Your task to perform on an android device: Check the news Image 0: 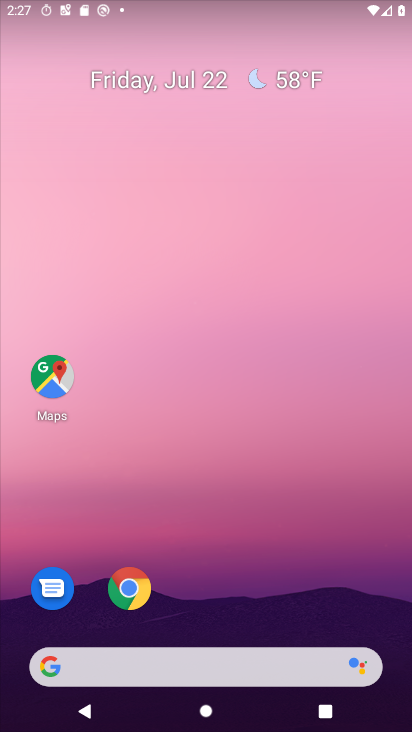
Step 0: press home button
Your task to perform on an android device: Check the news Image 1: 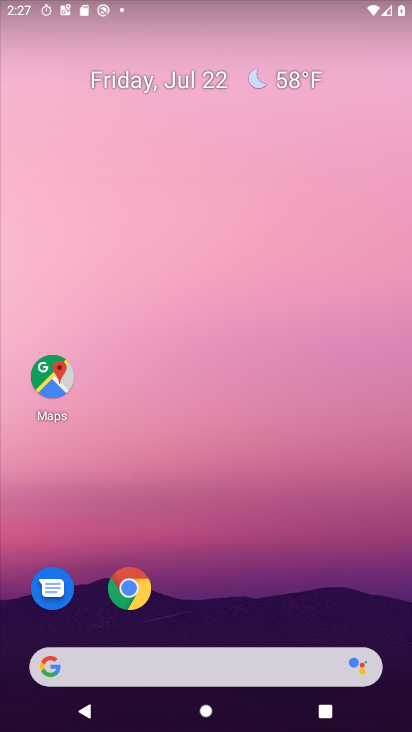
Step 1: drag from (301, 654) to (273, 8)
Your task to perform on an android device: Check the news Image 2: 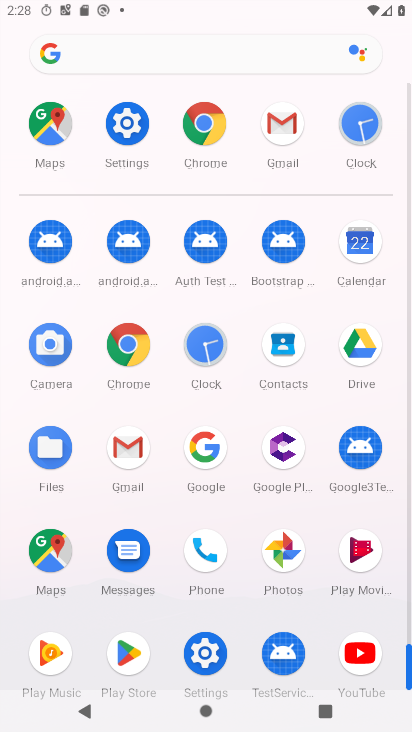
Step 2: click (135, 358)
Your task to perform on an android device: Check the news Image 3: 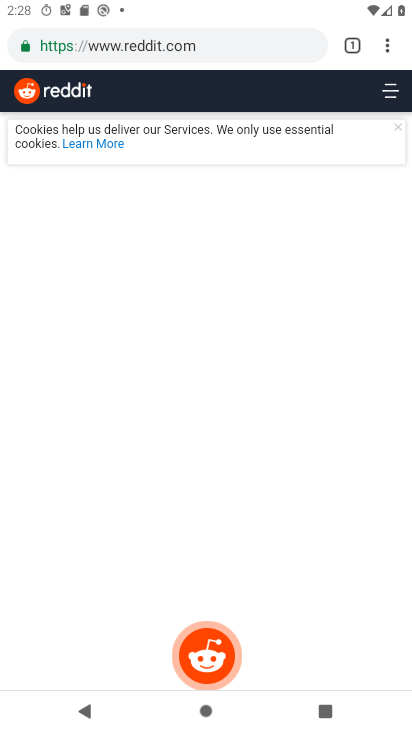
Step 3: click (99, 38)
Your task to perform on an android device: Check the news Image 4: 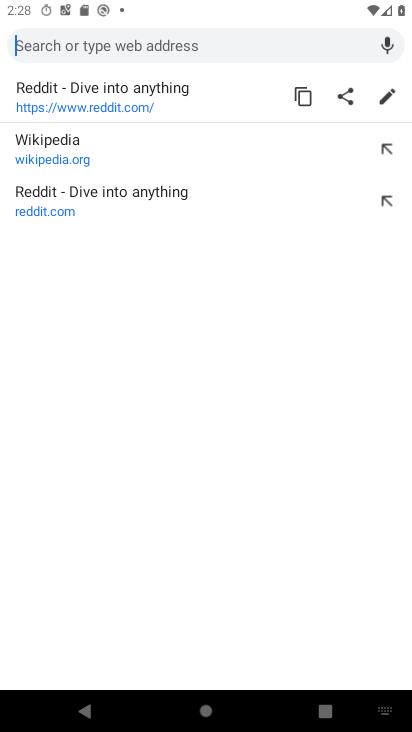
Step 4: type "news"
Your task to perform on an android device: Check the news Image 5: 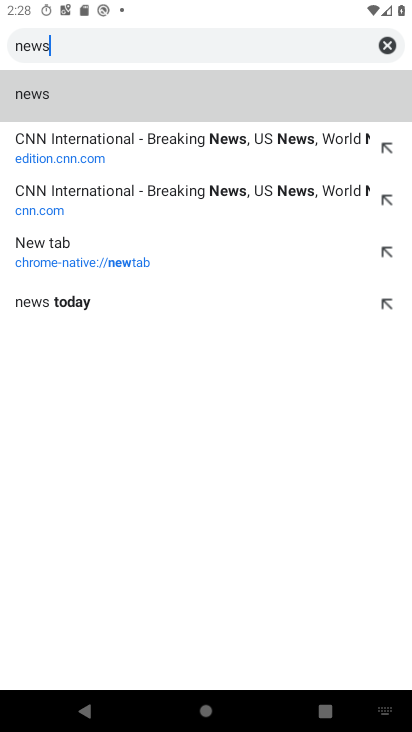
Step 5: type ""
Your task to perform on an android device: Check the news Image 6: 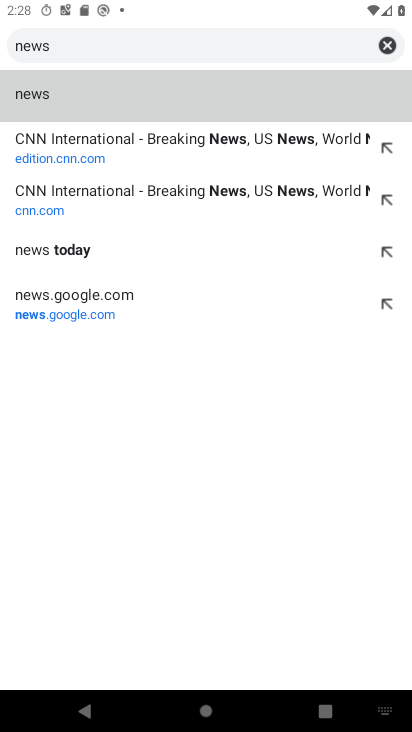
Step 6: click (82, 89)
Your task to perform on an android device: Check the news Image 7: 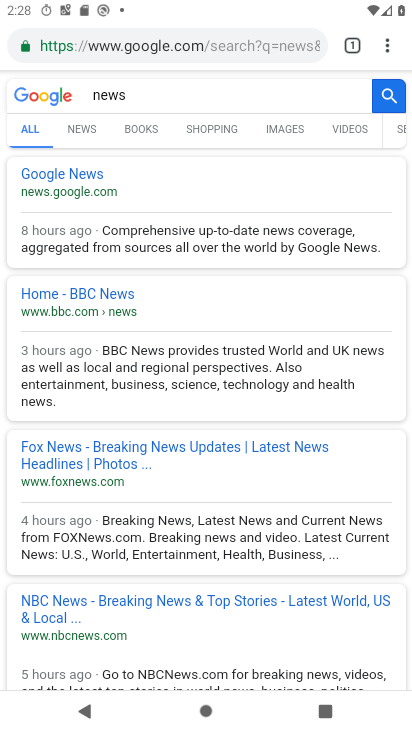
Step 7: task complete